Your task to perform on an android device: check google app version Image 0: 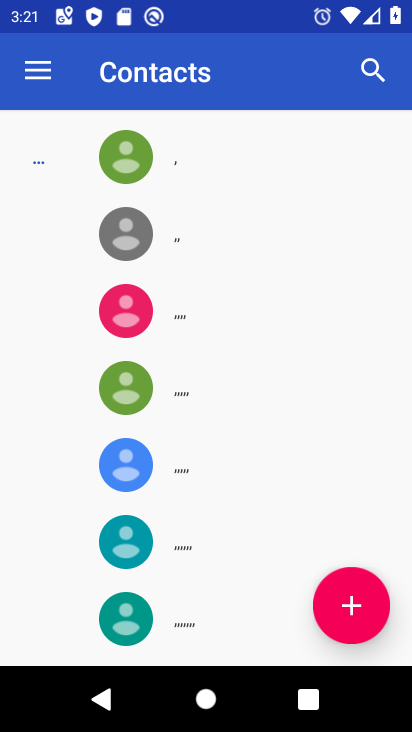
Step 0: press home button
Your task to perform on an android device: check google app version Image 1: 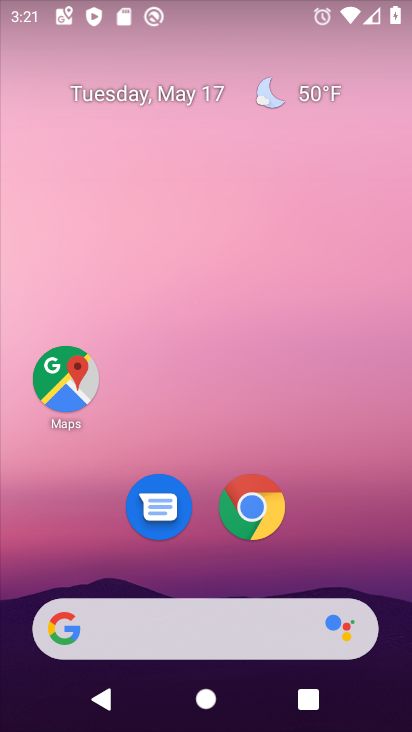
Step 1: drag from (339, 542) to (186, 92)
Your task to perform on an android device: check google app version Image 2: 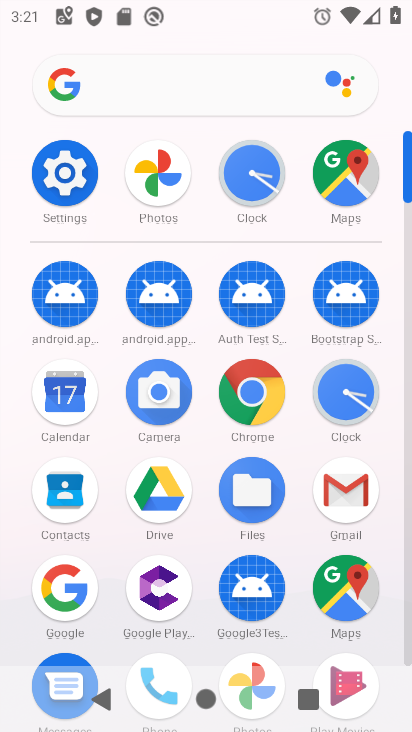
Step 2: click (67, 590)
Your task to perform on an android device: check google app version Image 3: 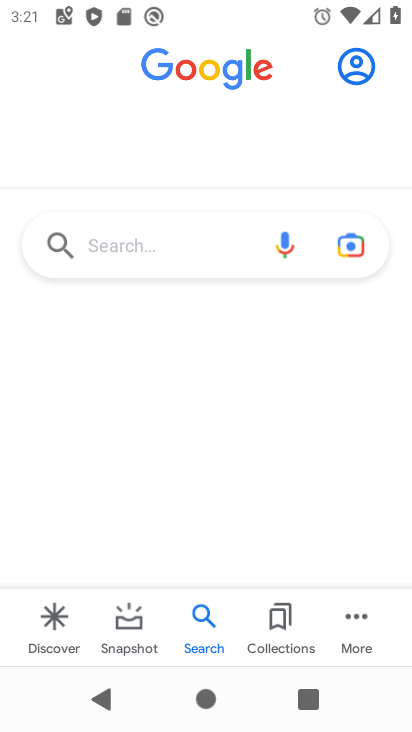
Step 3: click (361, 620)
Your task to perform on an android device: check google app version Image 4: 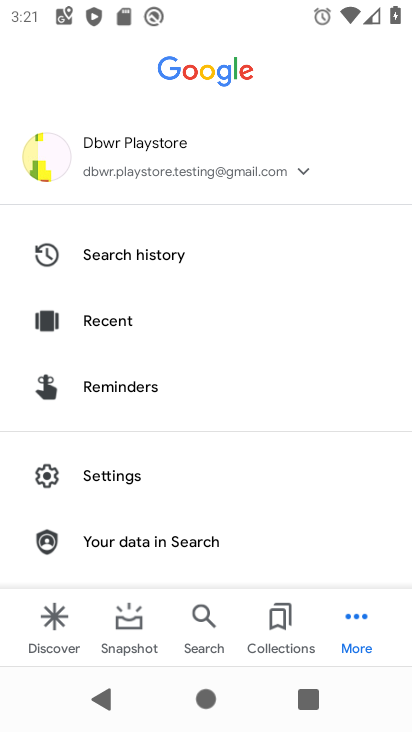
Step 4: click (119, 471)
Your task to perform on an android device: check google app version Image 5: 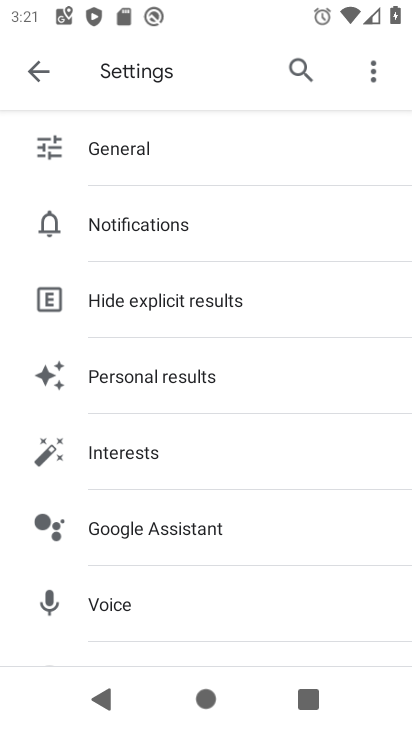
Step 5: drag from (225, 570) to (235, 148)
Your task to perform on an android device: check google app version Image 6: 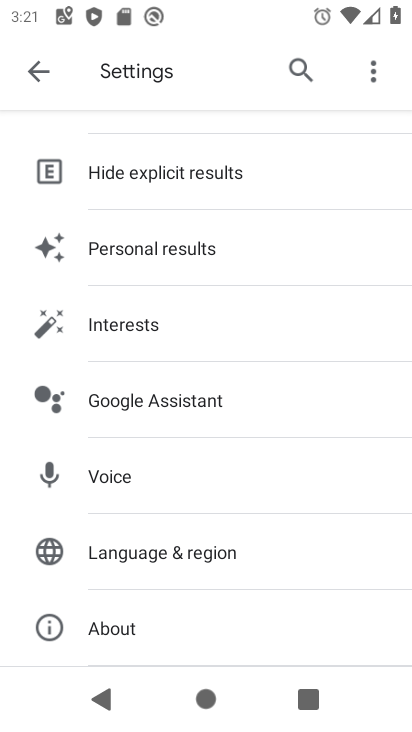
Step 6: click (136, 632)
Your task to perform on an android device: check google app version Image 7: 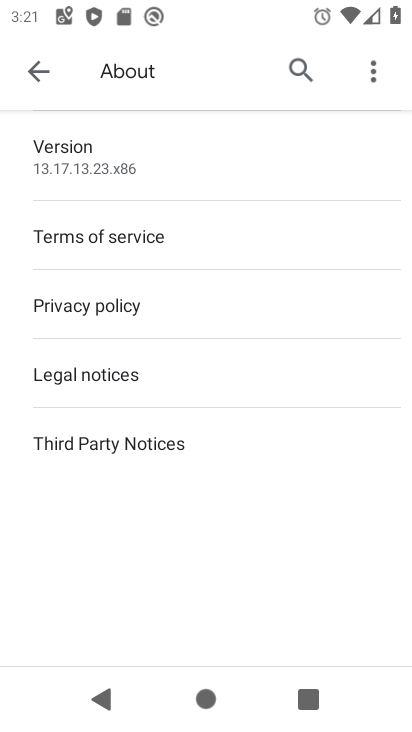
Step 7: click (129, 169)
Your task to perform on an android device: check google app version Image 8: 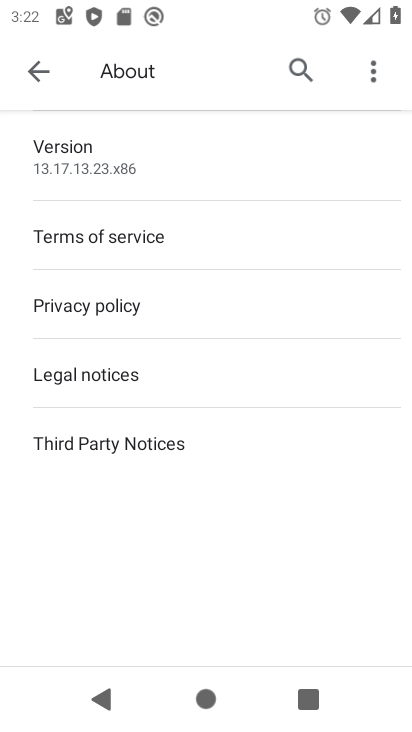
Step 8: task complete